Your task to perform on an android device: Do I have any events this weekend? Image 0: 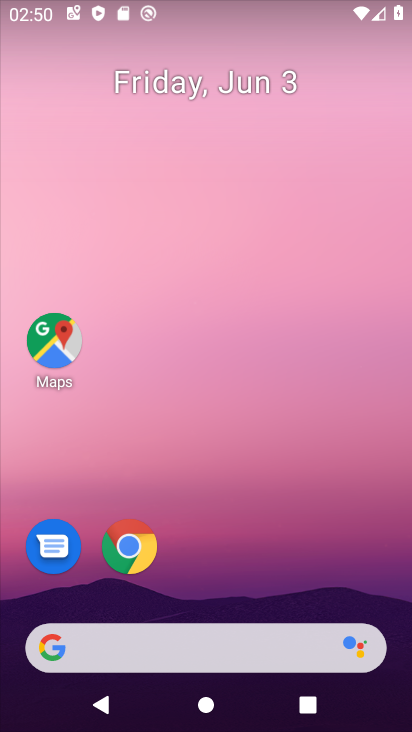
Step 0: drag from (235, 605) to (323, 151)
Your task to perform on an android device: Do I have any events this weekend? Image 1: 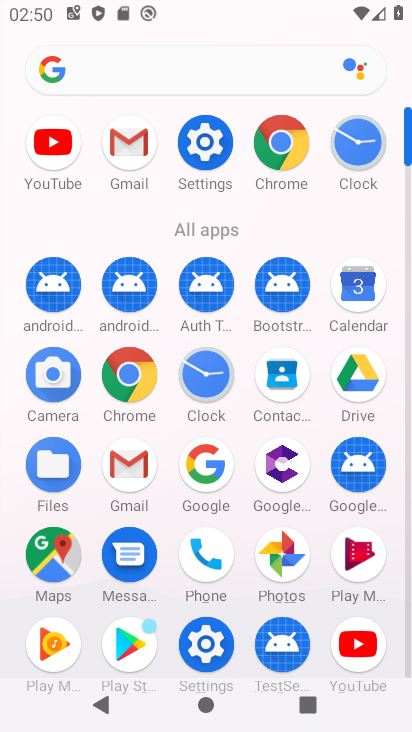
Step 1: click (351, 296)
Your task to perform on an android device: Do I have any events this weekend? Image 2: 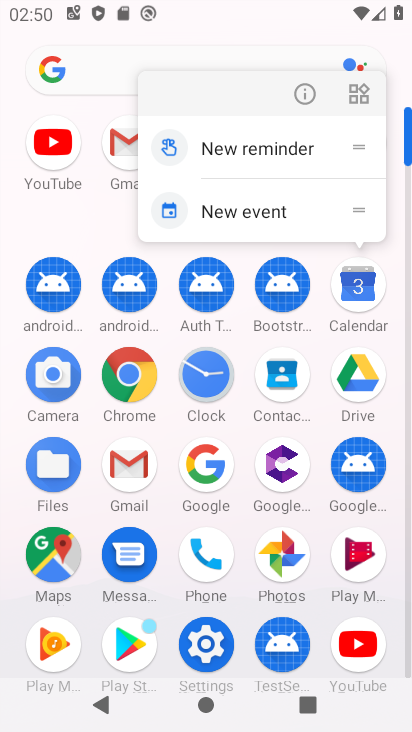
Step 2: click (351, 296)
Your task to perform on an android device: Do I have any events this weekend? Image 3: 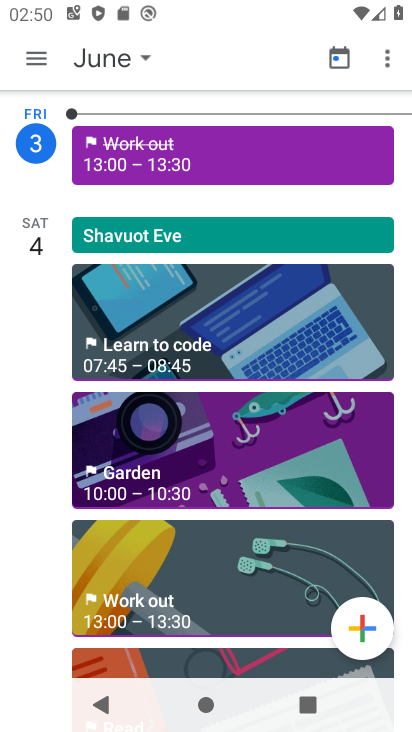
Step 3: click (82, 67)
Your task to perform on an android device: Do I have any events this weekend? Image 4: 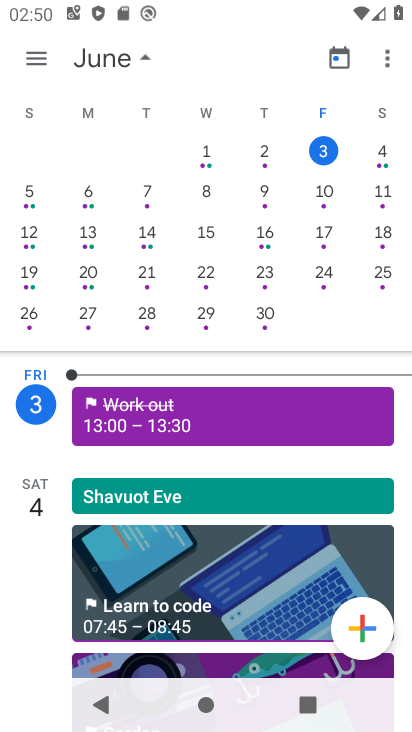
Step 4: click (372, 152)
Your task to perform on an android device: Do I have any events this weekend? Image 5: 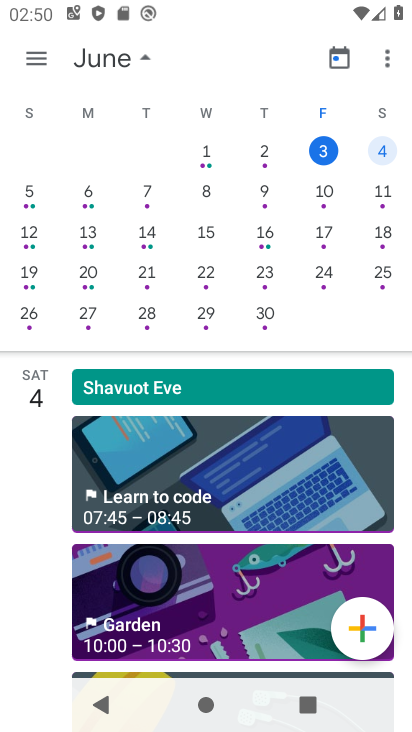
Step 5: task complete